Your task to perform on an android device: Open the stopwatch Image 0: 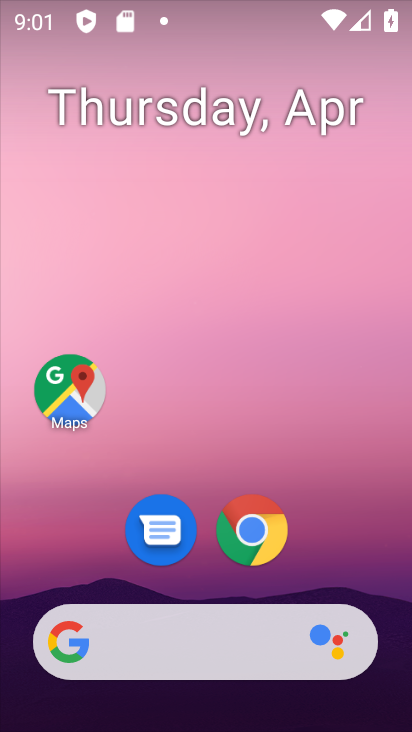
Step 0: drag from (364, 585) to (268, 44)
Your task to perform on an android device: Open the stopwatch Image 1: 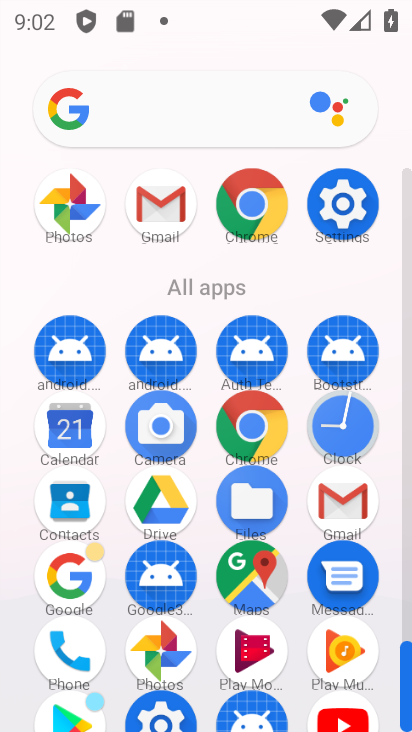
Step 1: click (334, 419)
Your task to perform on an android device: Open the stopwatch Image 2: 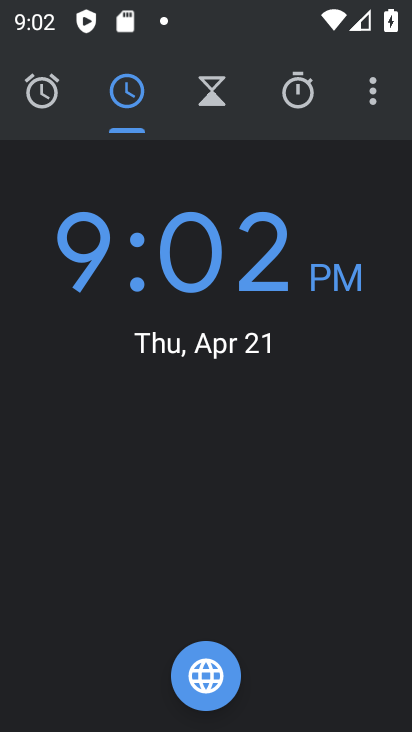
Step 2: click (375, 80)
Your task to perform on an android device: Open the stopwatch Image 3: 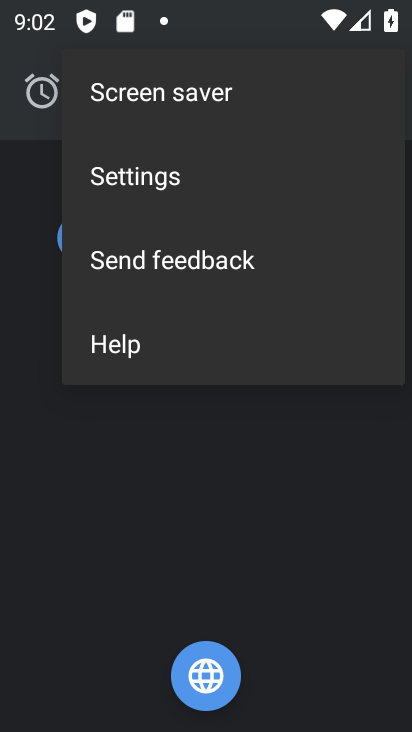
Step 3: click (312, 482)
Your task to perform on an android device: Open the stopwatch Image 4: 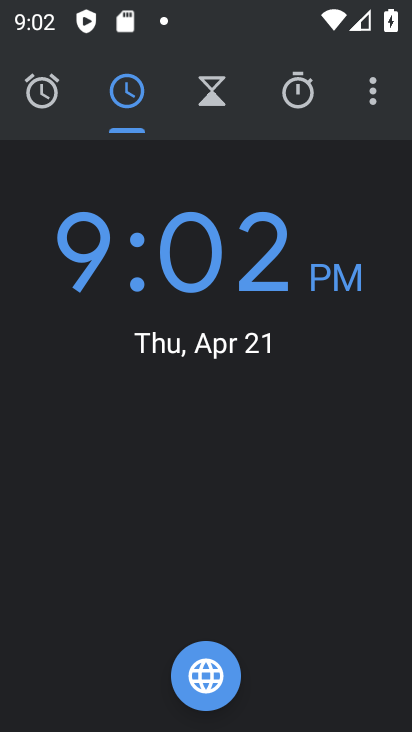
Step 4: click (303, 91)
Your task to perform on an android device: Open the stopwatch Image 5: 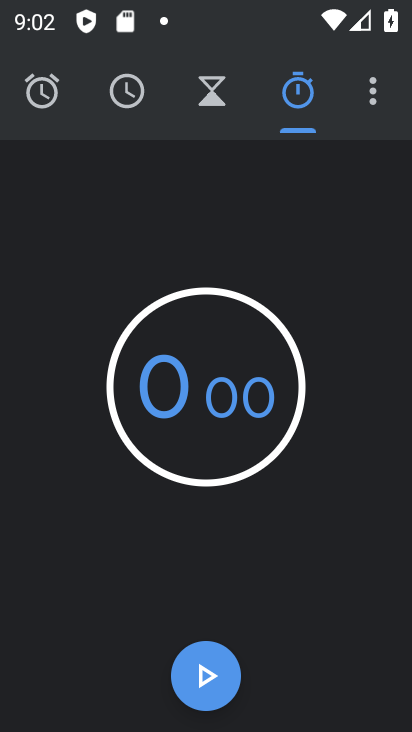
Step 5: task complete